Your task to perform on an android device: toggle data saver in the chrome app Image 0: 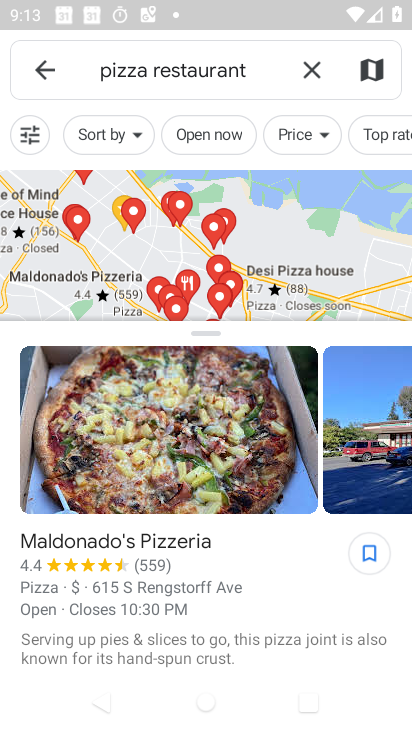
Step 0: press home button
Your task to perform on an android device: toggle data saver in the chrome app Image 1: 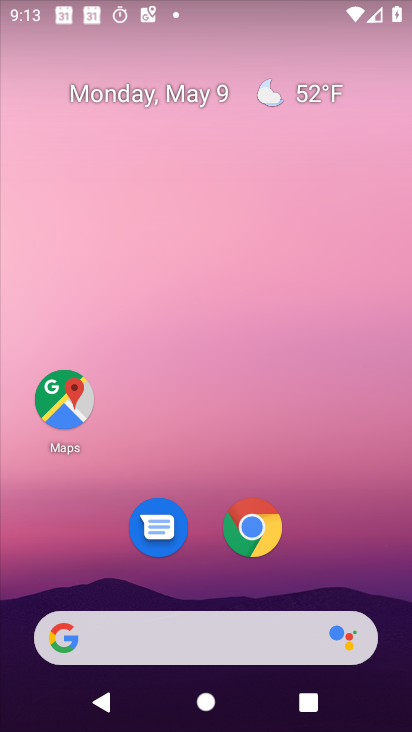
Step 1: drag from (356, 549) to (367, 140)
Your task to perform on an android device: toggle data saver in the chrome app Image 2: 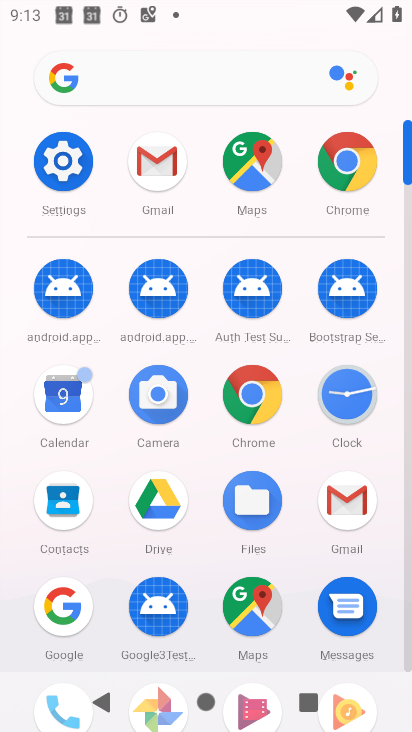
Step 2: click (262, 419)
Your task to perform on an android device: toggle data saver in the chrome app Image 3: 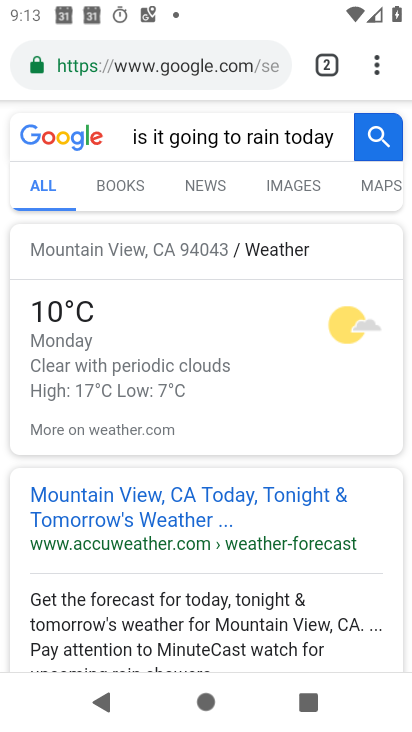
Step 3: drag from (379, 66) to (216, 579)
Your task to perform on an android device: toggle data saver in the chrome app Image 4: 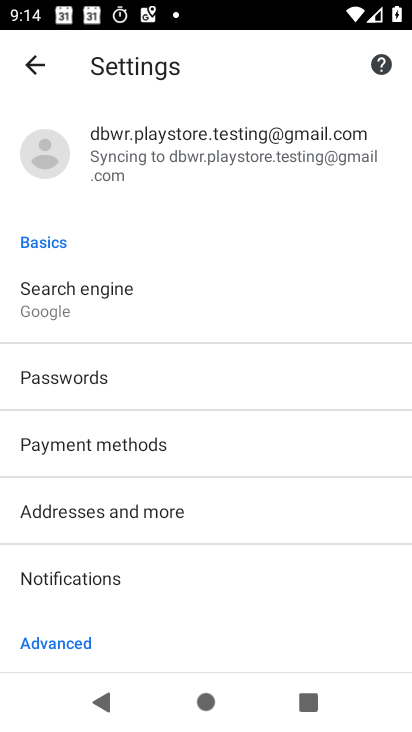
Step 4: drag from (212, 586) to (274, 176)
Your task to perform on an android device: toggle data saver in the chrome app Image 5: 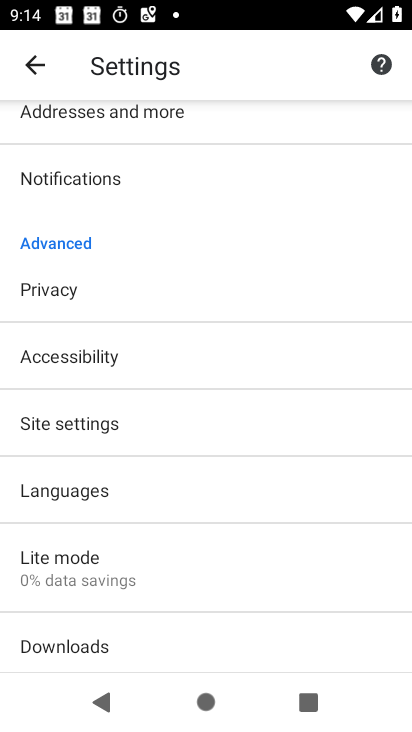
Step 5: click (142, 568)
Your task to perform on an android device: toggle data saver in the chrome app Image 6: 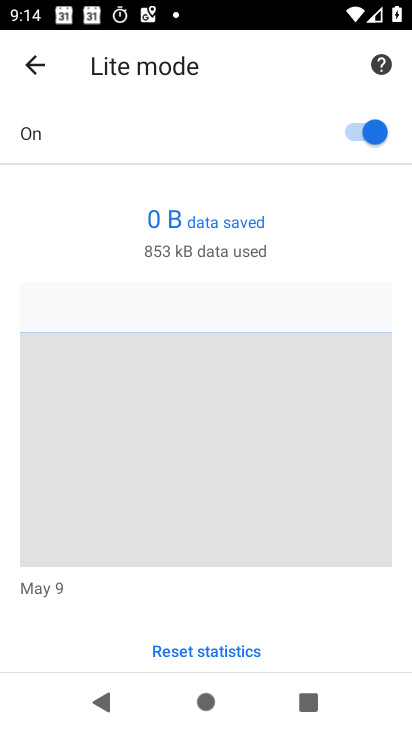
Step 6: click (362, 130)
Your task to perform on an android device: toggle data saver in the chrome app Image 7: 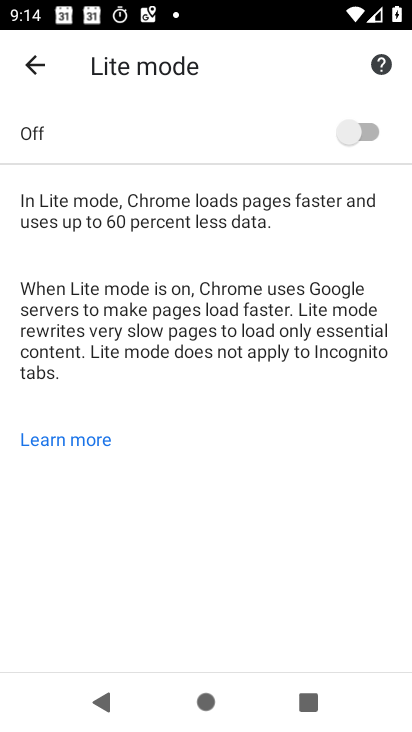
Step 7: task complete